Your task to perform on an android device: toggle airplane mode Image 0: 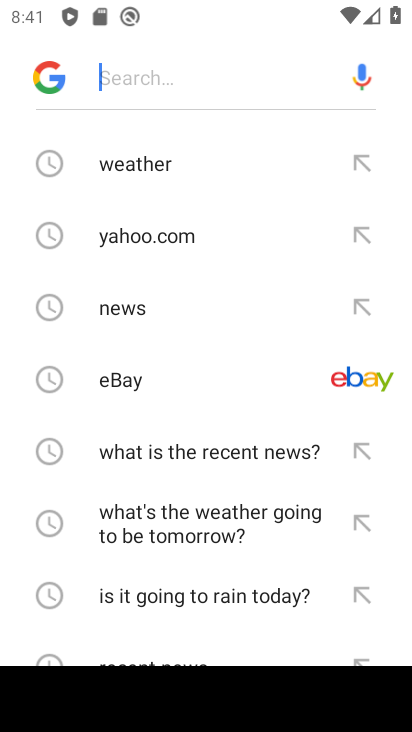
Step 0: press home button
Your task to perform on an android device: toggle airplane mode Image 1: 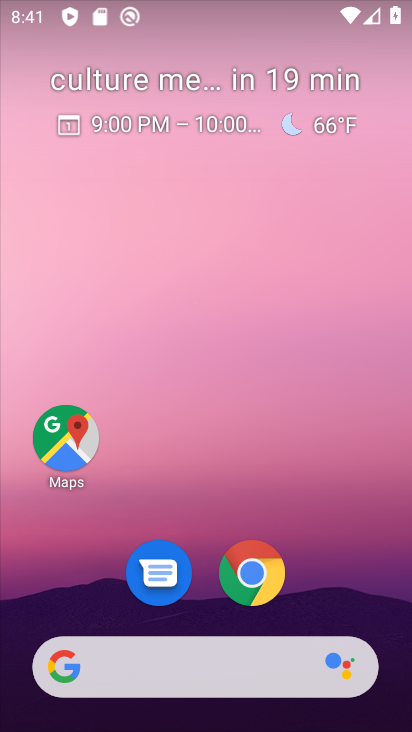
Step 1: drag from (344, 17) to (247, 483)
Your task to perform on an android device: toggle airplane mode Image 2: 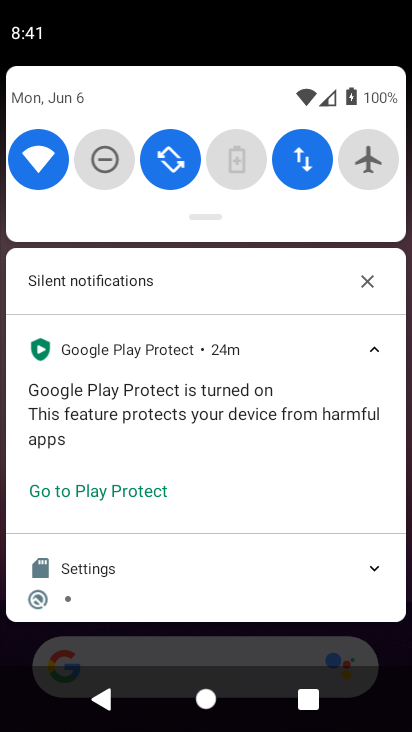
Step 2: click (354, 157)
Your task to perform on an android device: toggle airplane mode Image 3: 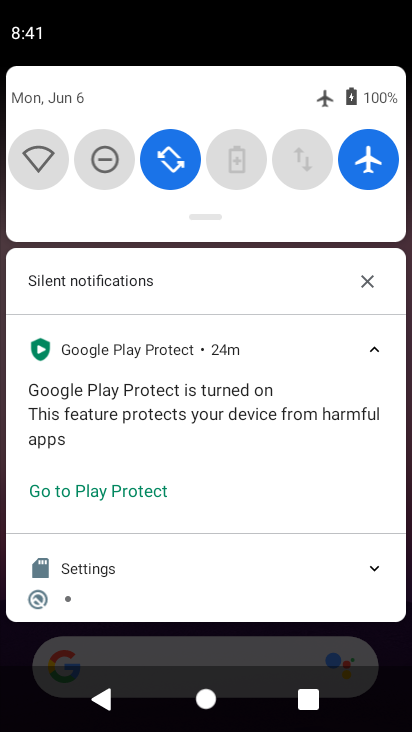
Step 3: task complete